Your task to perform on an android device: Go to accessibility settings Image 0: 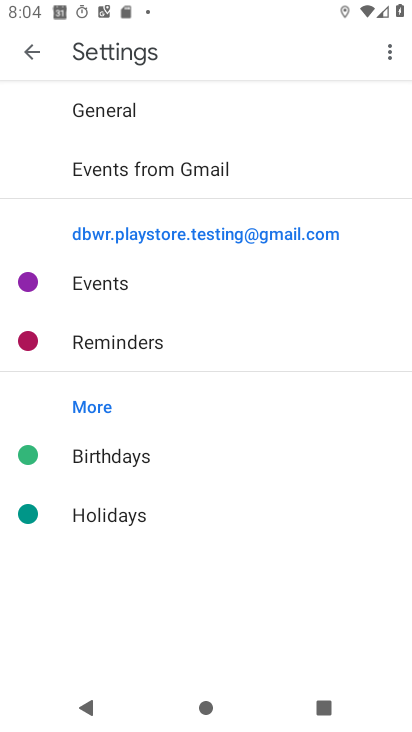
Step 0: press home button
Your task to perform on an android device: Go to accessibility settings Image 1: 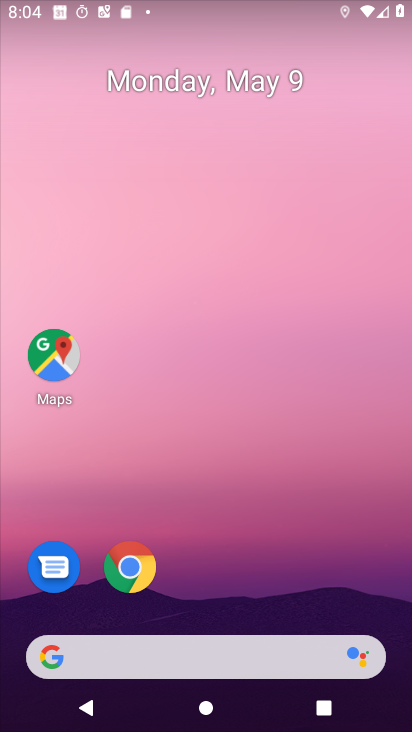
Step 1: drag from (265, 489) to (193, 0)
Your task to perform on an android device: Go to accessibility settings Image 2: 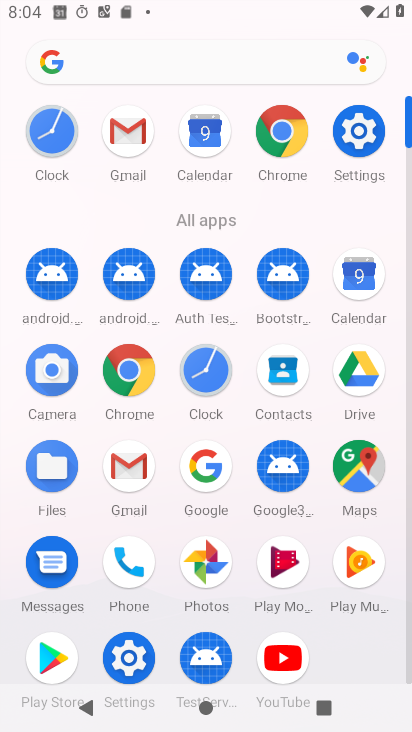
Step 2: click (366, 122)
Your task to perform on an android device: Go to accessibility settings Image 3: 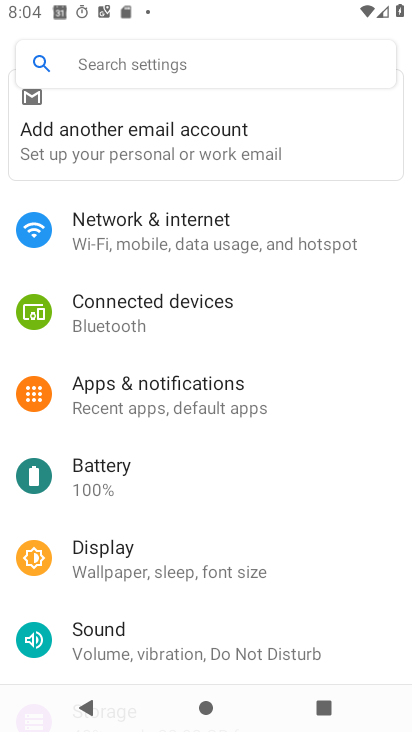
Step 3: drag from (133, 510) to (115, 361)
Your task to perform on an android device: Go to accessibility settings Image 4: 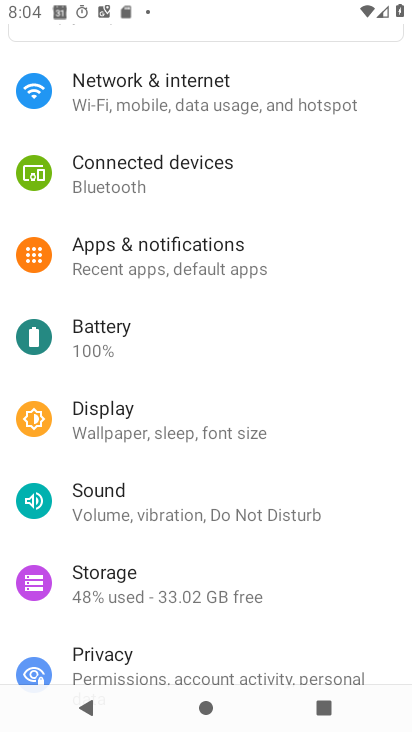
Step 4: drag from (148, 665) to (104, 355)
Your task to perform on an android device: Go to accessibility settings Image 5: 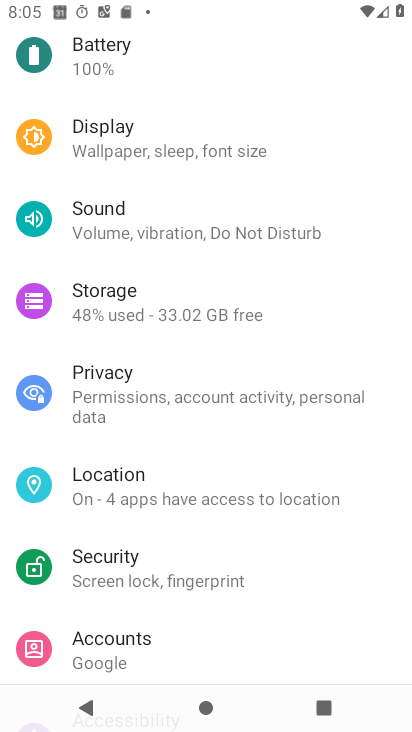
Step 5: drag from (166, 624) to (160, 303)
Your task to perform on an android device: Go to accessibility settings Image 6: 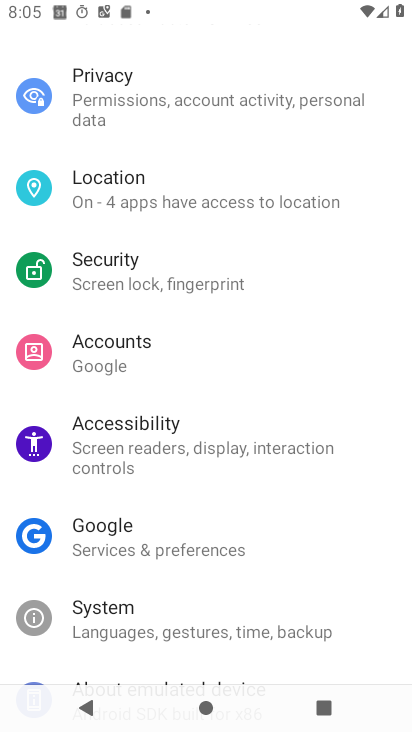
Step 6: click (107, 460)
Your task to perform on an android device: Go to accessibility settings Image 7: 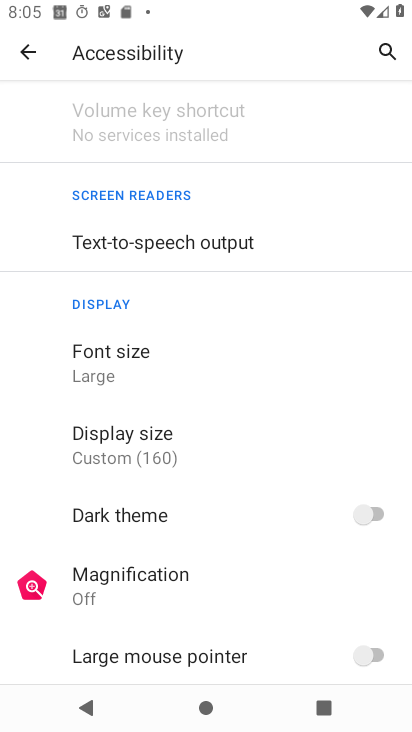
Step 7: task complete